Your task to perform on an android device: toggle priority inbox in the gmail app Image 0: 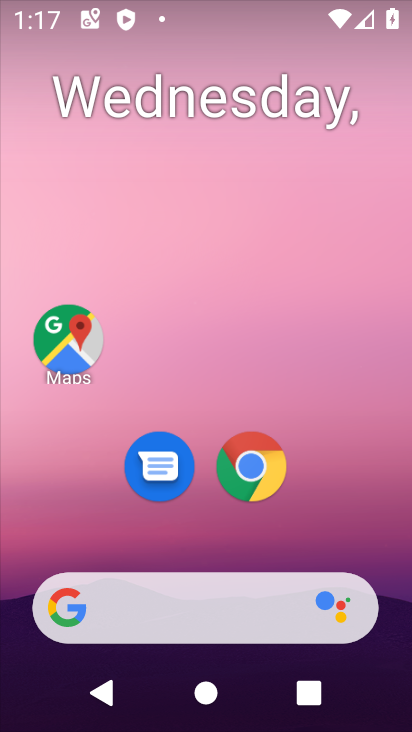
Step 0: drag from (340, 502) to (325, 53)
Your task to perform on an android device: toggle priority inbox in the gmail app Image 1: 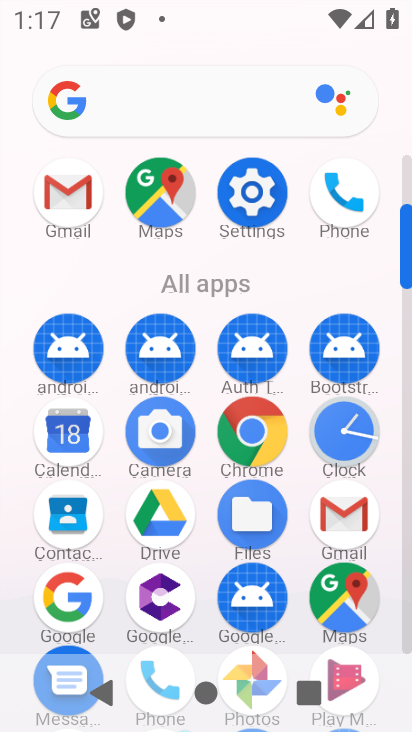
Step 1: click (67, 212)
Your task to perform on an android device: toggle priority inbox in the gmail app Image 2: 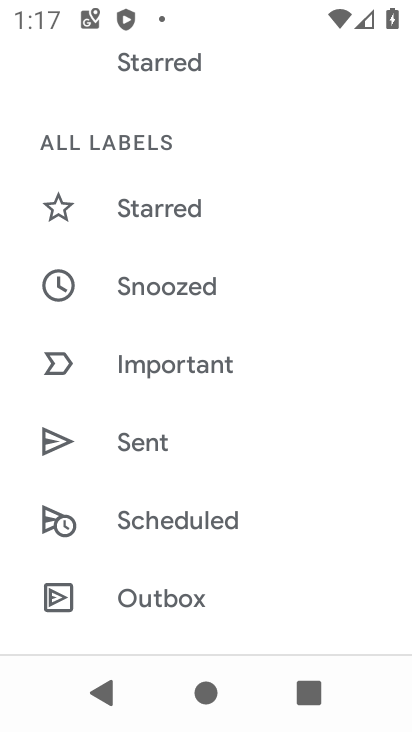
Step 2: drag from (192, 146) to (217, 376)
Your task to perform on an android device: toggle priority inbox in the gmail app Image 3: 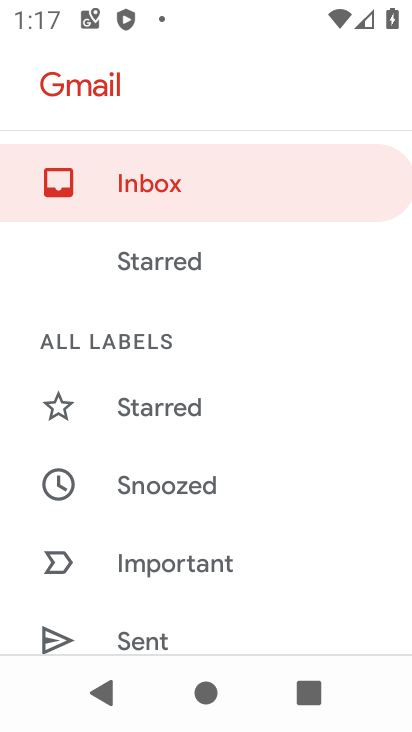
Step 3: drag from (243, 545) to (225, 305)
Your task to perform on an android device: toggle priority inbox in the gmail app Image 4: 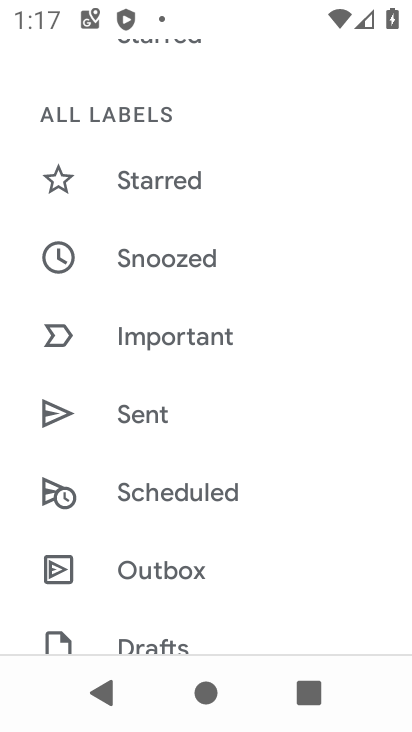
Step 4: drag from (215, 546) to (219, 319)
Your task to perform on an android device: toggle priority inbox in the gmail app Image 5: 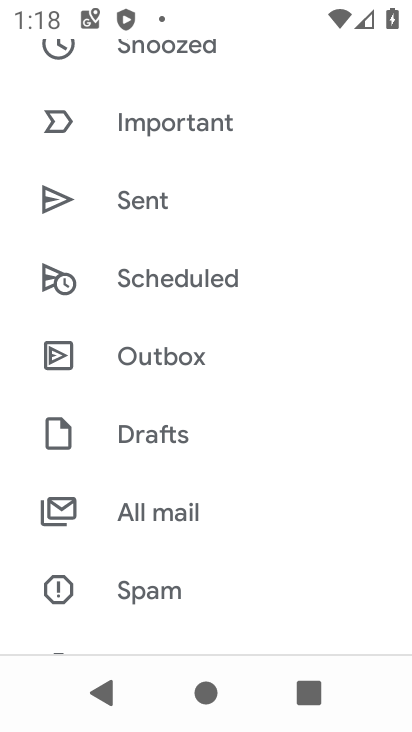
Step 5: drag from (196, 487) to (202, 206)
Your task to perform on an android device: toggle priority inbox in the gmail app Image 6: 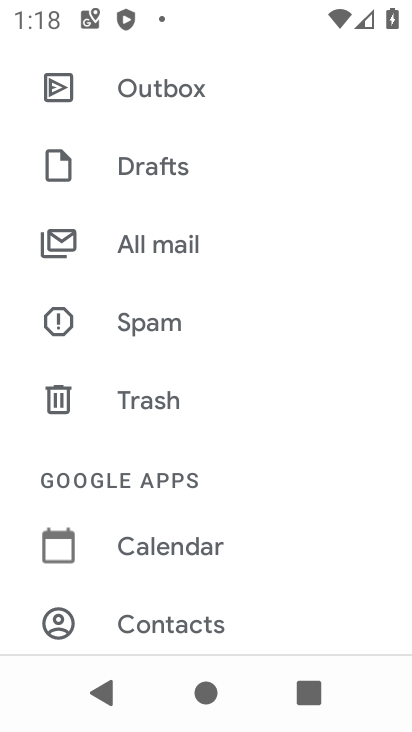
Step 6: drag from (200, 572) to (203, 224)
Your task to perform on an android device: toggle priority inbox in the gmail app Image 7: 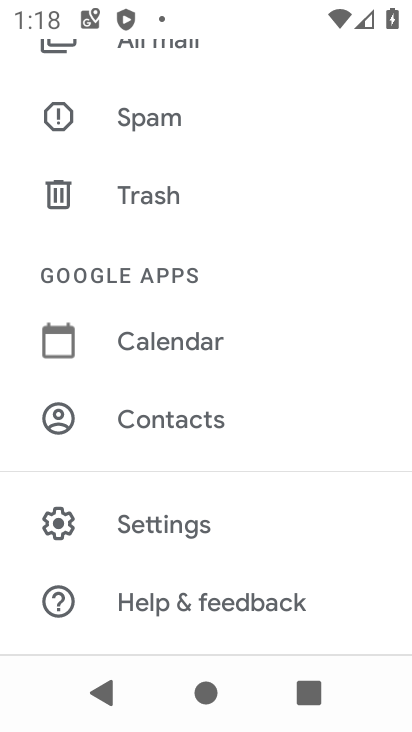
Step 7: click (181, 517)
Your task to perform on an android device: toggle priority inbox in the gmail app Image 8: 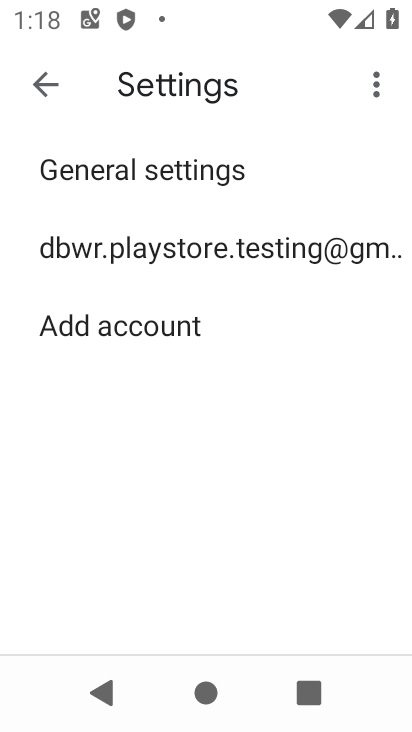
Step 8: click (175, 241)
Your task to perform on an android device: toggle priority inbox in the gmail app Image 9: 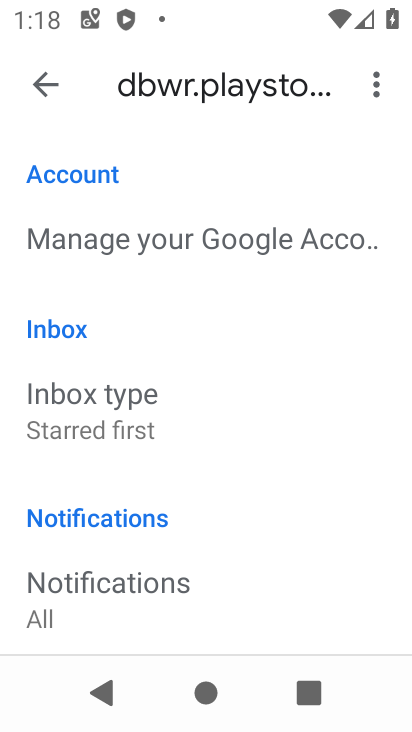
Step 9: click (143, 386)
Your task to perform on an android device: toggle priority inbox in the gmail app Image 10: 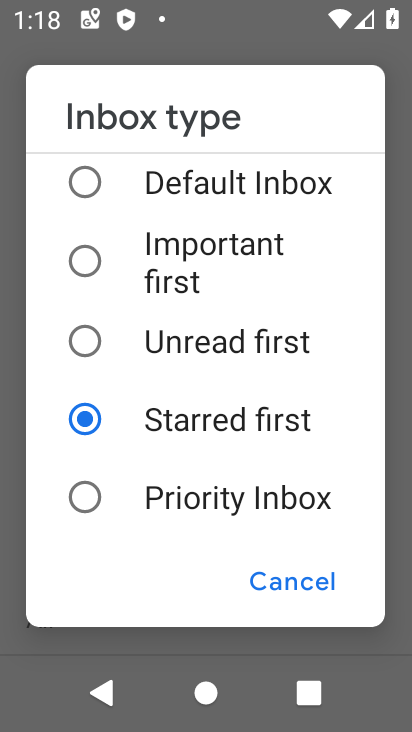
Step 10: click (156, 489)
Your task to perform on an android device: toggle priority inbox in the gmail app Image 11: 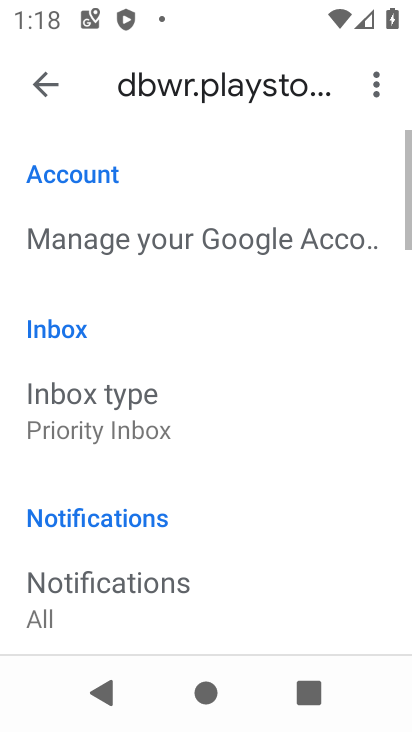
Step 11: task complete